Your task to perform on an android device: Turn off the flashlight Image 0: 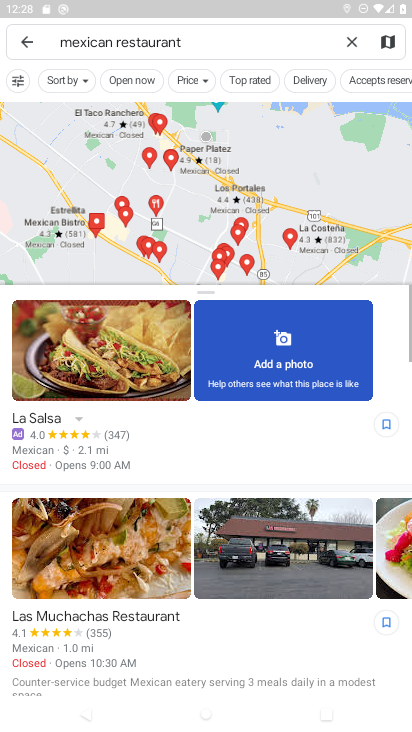
Step 0: drag from (243, 718) to (236, 192)
Your task to perform on an android device: Turn off the flashlight Image 1: 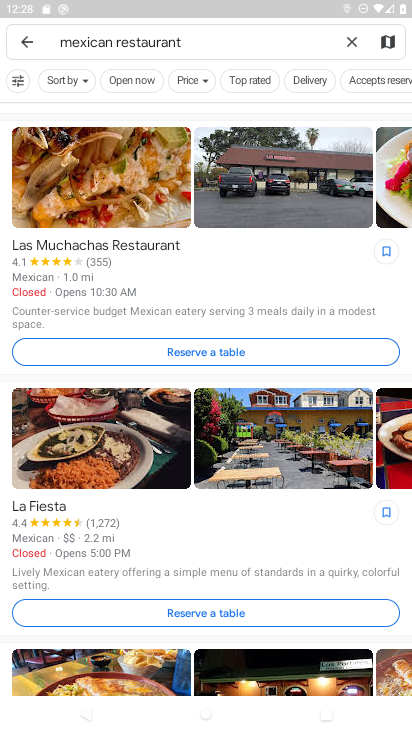
Step 1: press home button
Your task to perform on an android device: Turn off the flashlight Image 2: 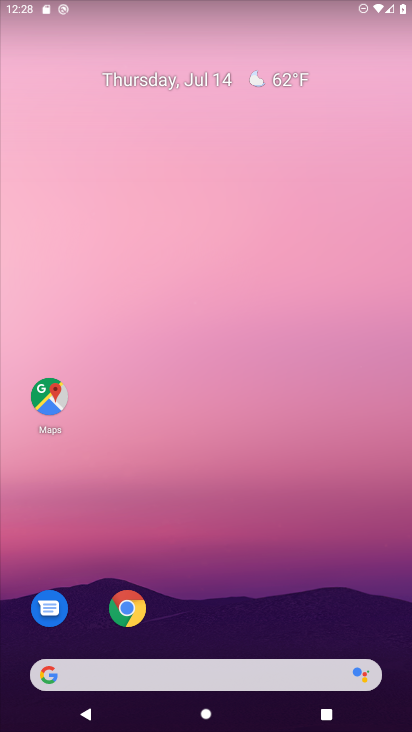
Step 2: drag from (236, 678) to (168, 69)
Your task to perform on an android device: Turn off the flashlight Image 3: 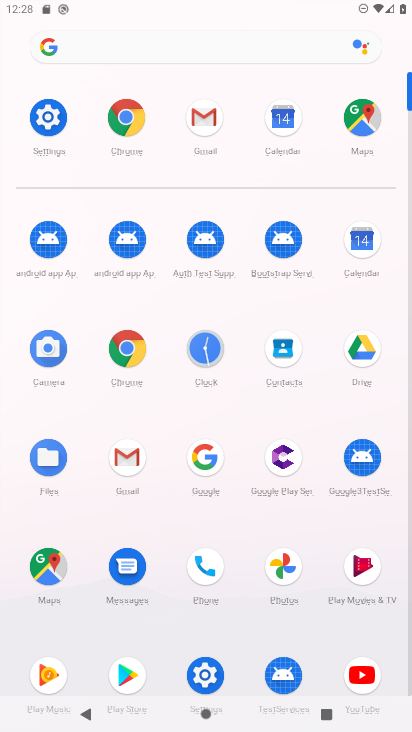
Step 3: click (45, 112)
Your task to perform on an android device: Turn off the flashlight Image 4: 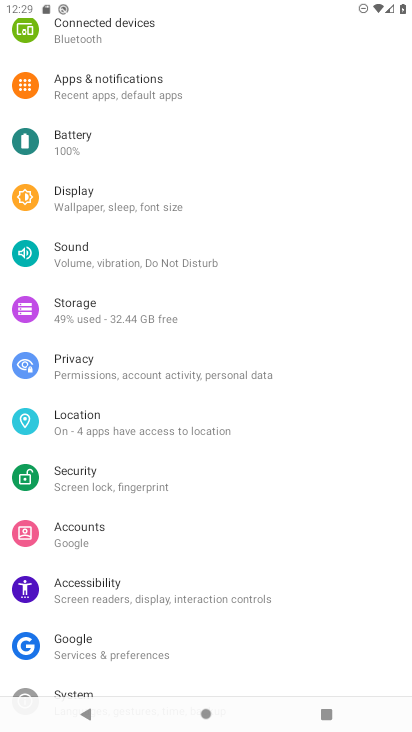
Step 4: task complete